Your task to perform on an android device: show emergency info Image 0: 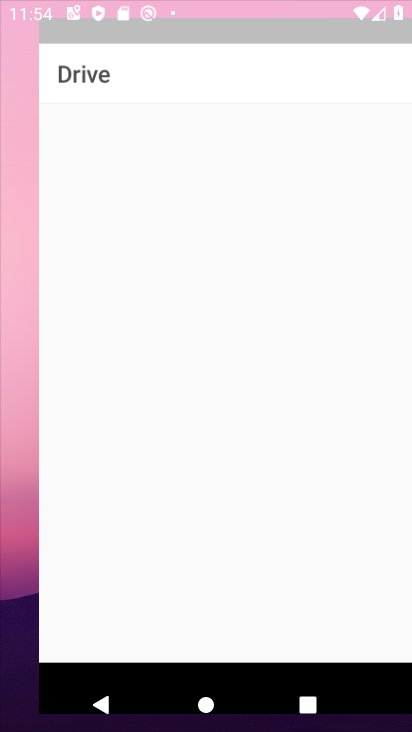
Step 0: press home button
Your task to perform on an android device: show emergency info Image 1: 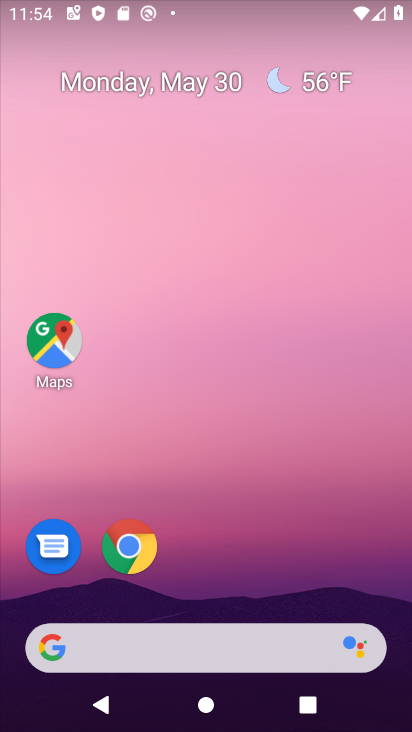
Step 1: drag from (279, 604) to (161, 23)
Your task to perform on an android device: show emergency info Image 2: 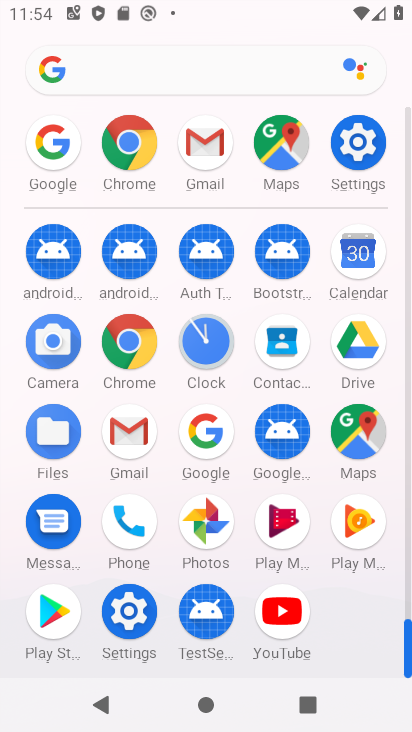
Step 2: click (358, 142)
Your task to perform on an android device: show emergency info Image 3: 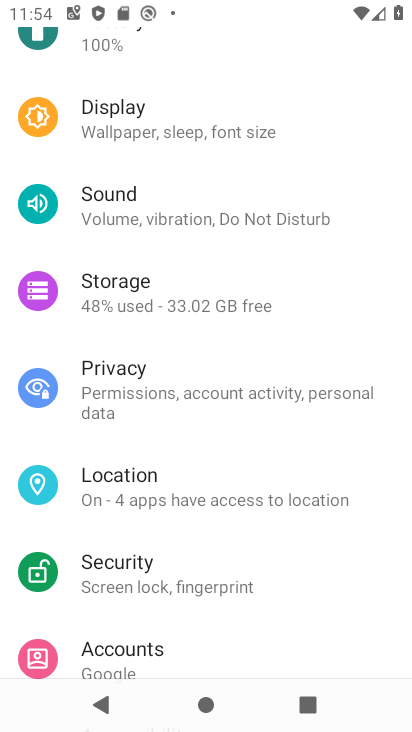
Step 3: drag from (169, 426) to (206, 330)
Your task to perform on an android device: show emergency info Image 4: 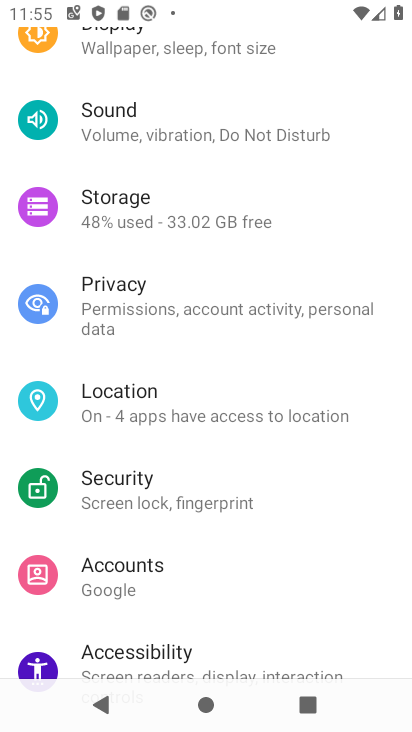
Step 4: drag from (201, 463) to (236, 386)
Your task to perform on an android device: show emergency info Image 5: 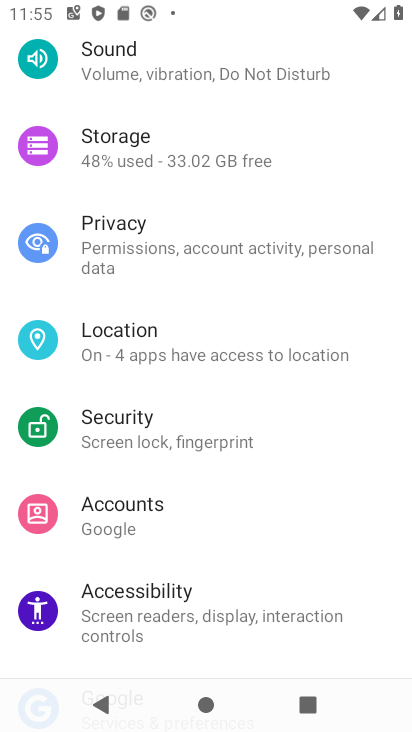
Step 5: drag from (185, 525) to (234, 427)
Your task to perform on an android device: show emergency info Image 6: 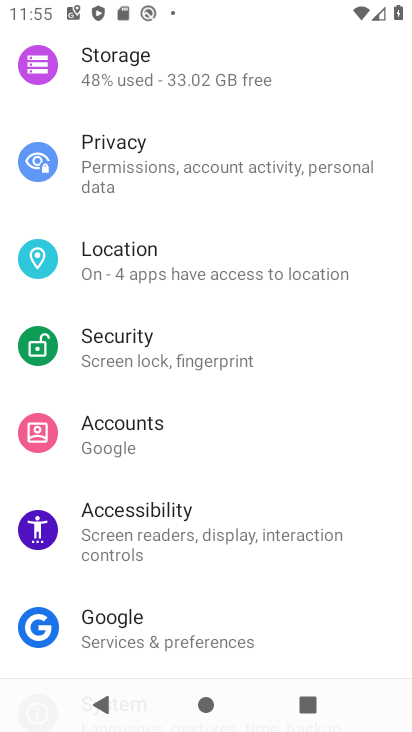
Step 6: drag from (165, 557) to (220, 449)
Your task to perform on an android device: show emergency info Image 7: 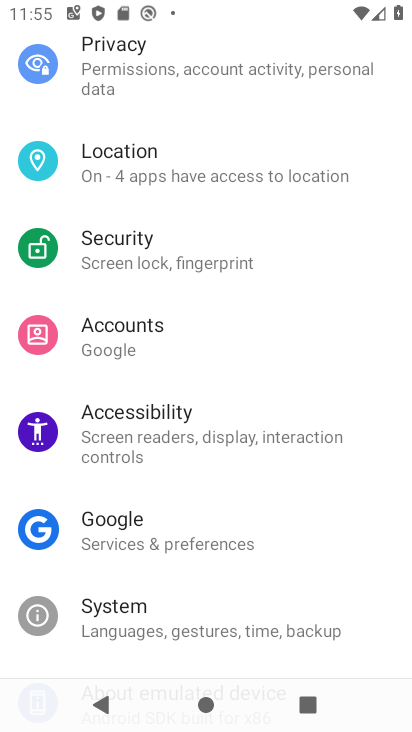
Step 7: drag from (124, 576) to (182, 489)
Your task to perform on an android device: show emergency info Image 8: 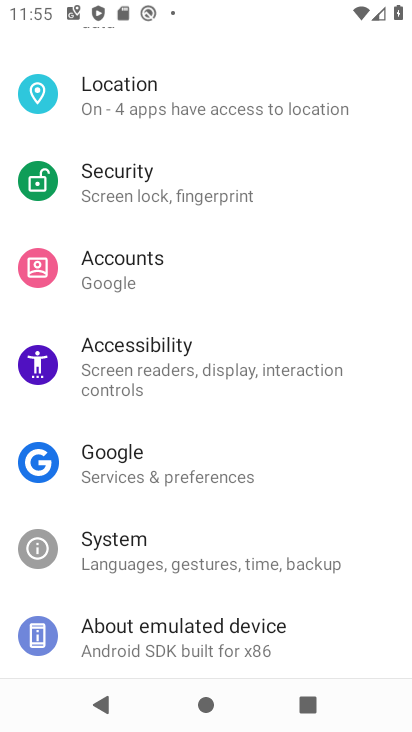
Step 8: drag from (116, 589) to (182, 471)
Your task to perform on an android device: show emergency info Image 9: 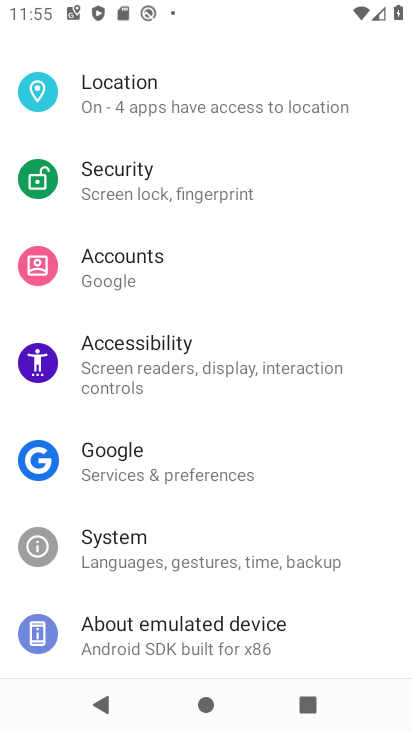
Step 9: click (156, 616)
Your task to perform on an android device: show emergency info Image 10: 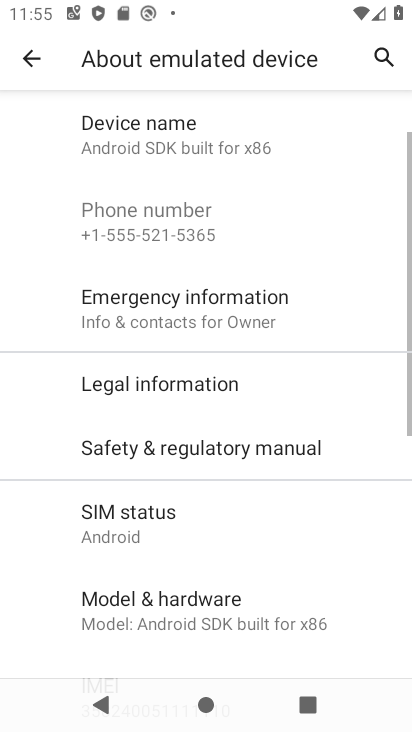
Step 10: click (189, 326)
Your task to perform on an android device: show emergency info Image 11: 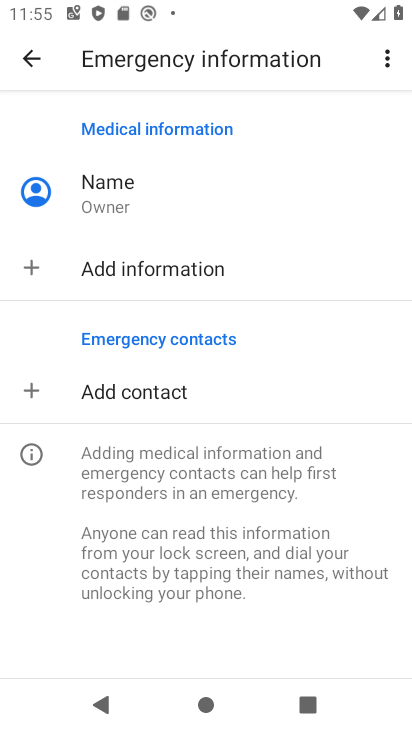
Step 11: task complete